Your task to perform on an android device: refresh tabs in the chrome app Image 0: 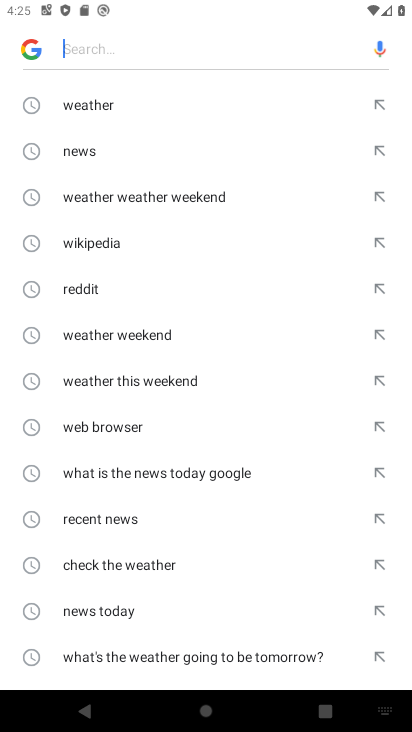
Step 0: press home button
Your task to perform on an android device: refresh tabs in the chrome app Image 1: 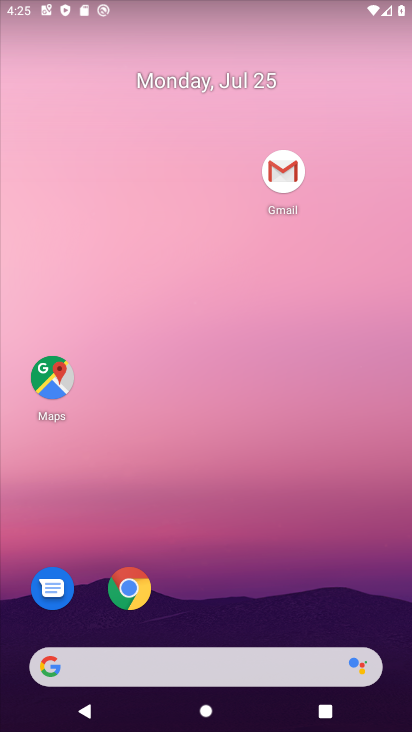
Step 1: drag from (233, 554) to (404, 172)
Your task to perform on an android device: refresh tabs in the chrome app Image 2: 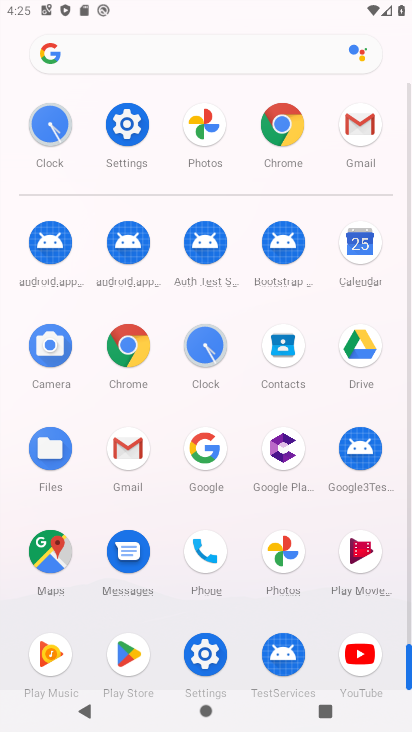
Step 2: click (283, 126)
Your task to perform on an android device: refresh tabs in the chrome app Image 3: 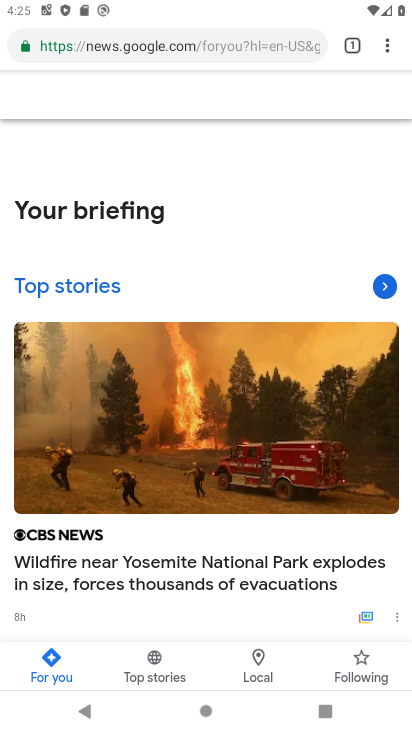
Step 3: click (389, 43)
Your task to perform on an android device: refresh tabs in the chrome app Image 4: 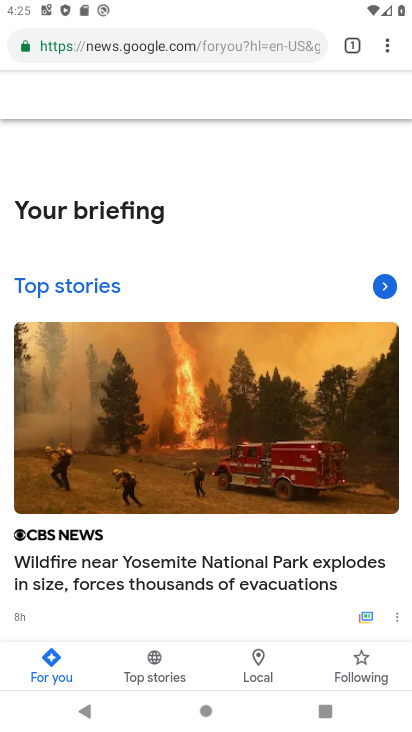
Step 4: task complete